Your task to perform on an android device: Go to CNN.com Image 0: 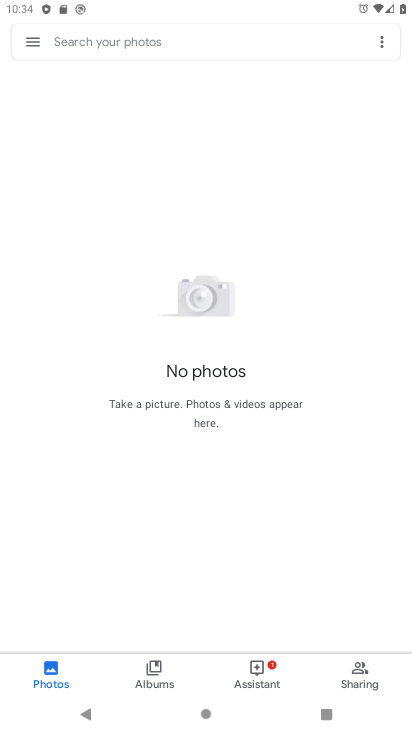
Step 0: press home button
Your task to perform on an android device: Go to CNN.com Image 1: 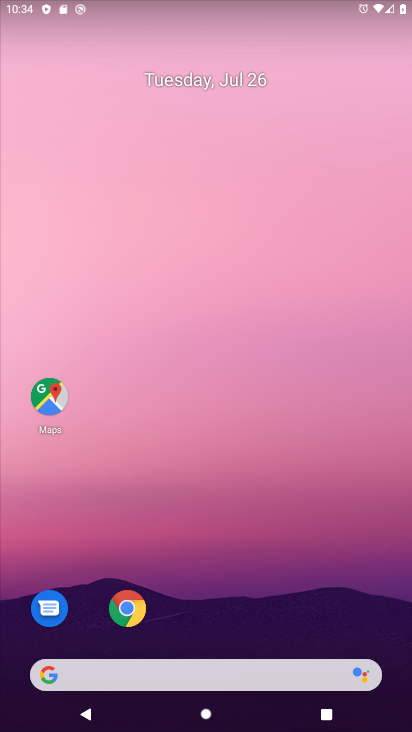
Step 1: click (123, 604)
Your task to perform on an android device: Go to CNN.com Image 2: 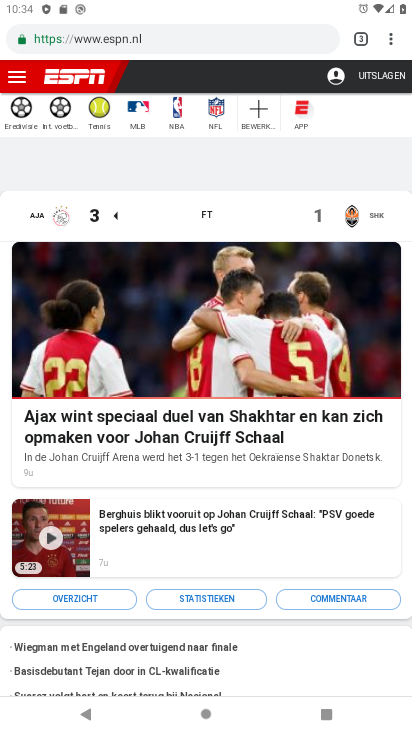
Step 2: click (391, 46)
Your task to perform on an android device: Go to CNN.com Image 3: 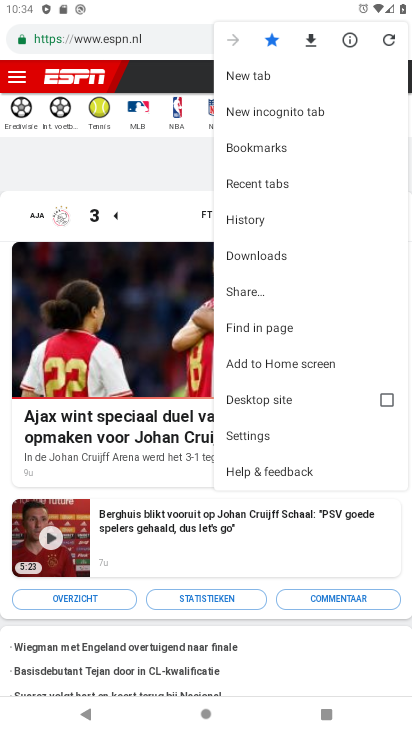
Step 3: click (248, 70)
Your task to perform on an android device: Go to CNN.com Image 4: 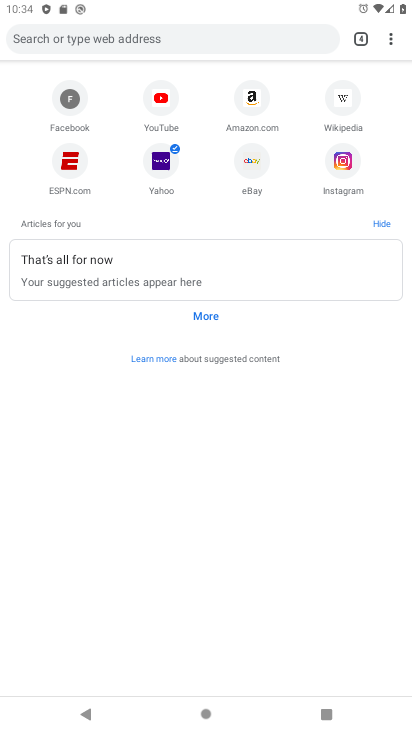
Step 4: click (175, 39)
Your task to perform on an android device: Go to CNN.com Image 5: 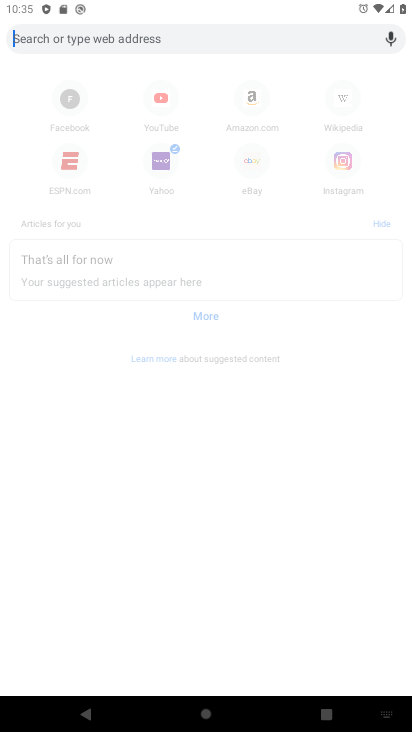
Step 5: type "CNN.com"
Your task to perform on an android device: Go to CNN.com Image 6: 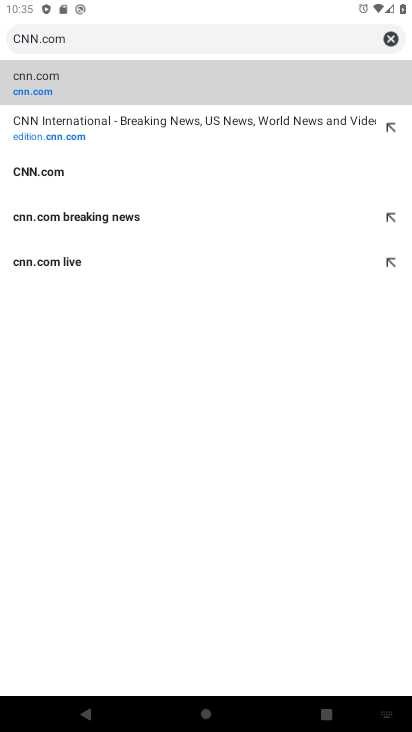
Step 6: click (50, 83)
Your task to perform on an android device: Go to CNN.com Image 7: 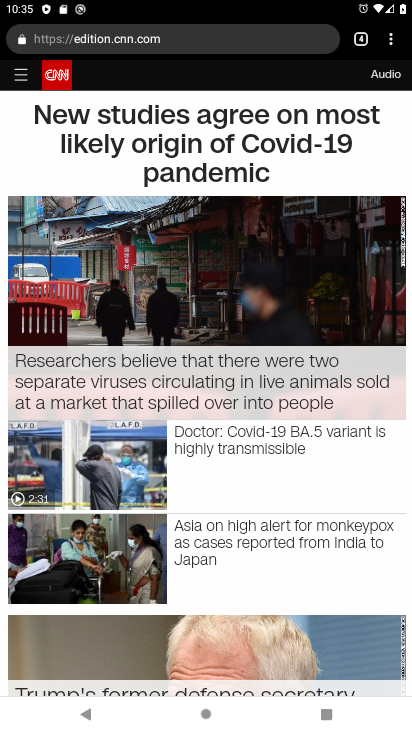
Step 7: task complete